Your task to perform on an android device: turn off priority inbox in the gmail app Image 0: 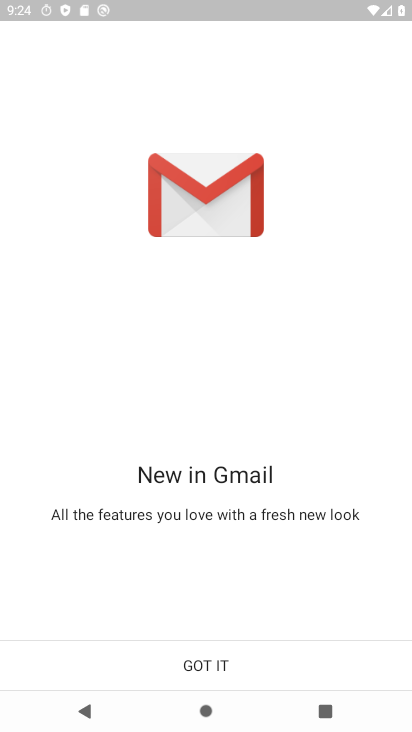
Step 0: click (184, 656)
Your task to perform on an android device: turn off priority inbox in the gmail app Image 1: 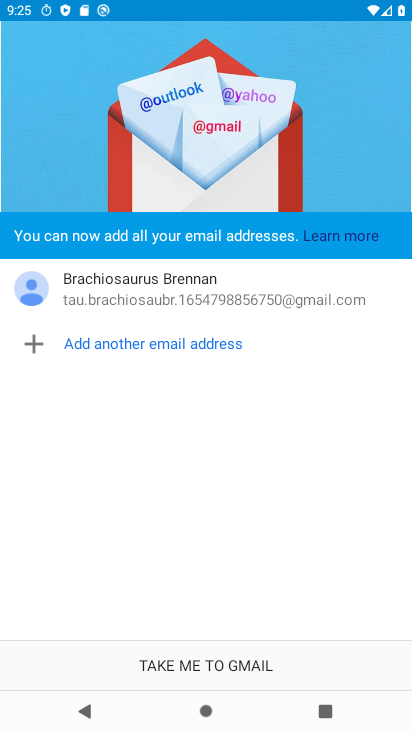
Step 1: click (184, 656)
Your task to perform on an android device: turn off priority inbox in the gmail app Image 2: 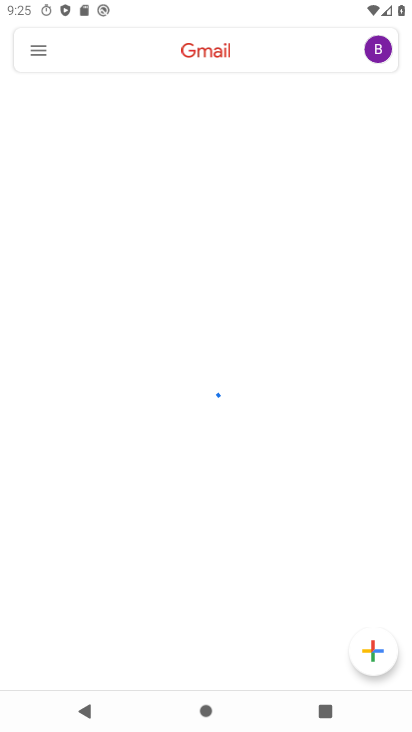
Step 2: click (34, 56)
Your task to perform on an android device: turn off priority inbox in the gmail app Image 3: 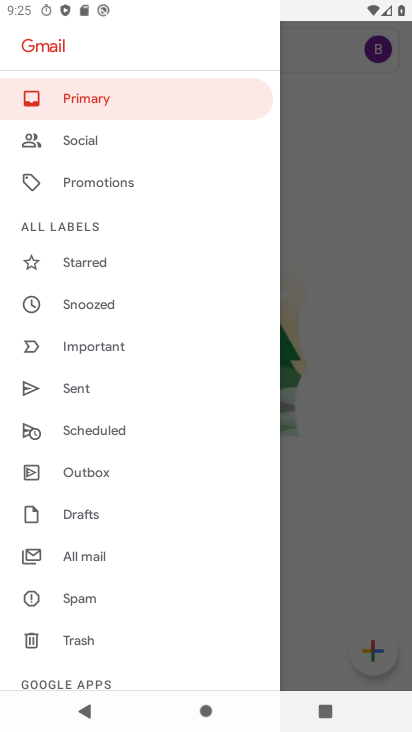
Step 3: drag from (103, 675) to (113, 38)
Your task to perform on an android device: turn off priority inbox in the gmail app Image 4: 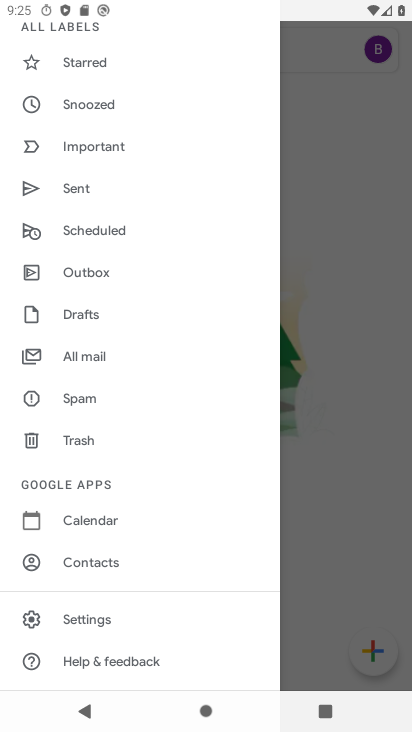
Step 4: click (109, 619)
Your task to perform on an android device: turn off priority inbox in the gmail app Image 5: 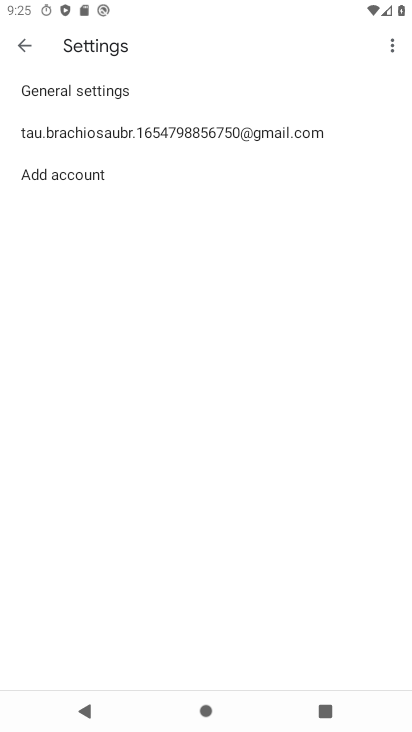
Step 5: click (164, 130)
Your task to perform on an android device: turn off priority inbox in the gmail app Image 6: 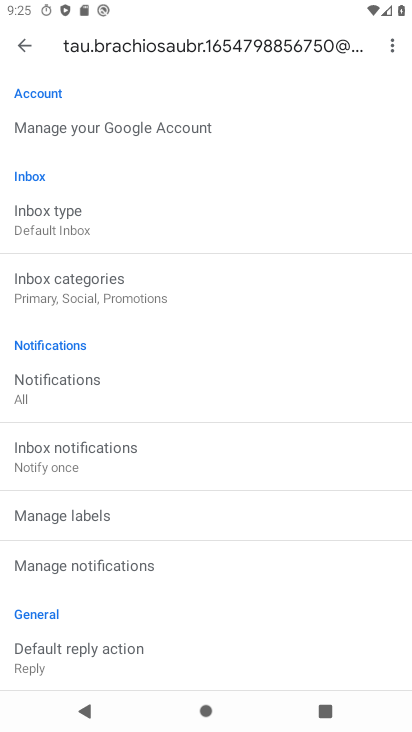
Step 6: click (95, 229)
Your task to perform on an android device: turn off priority inbox in the gmail app Image 7: 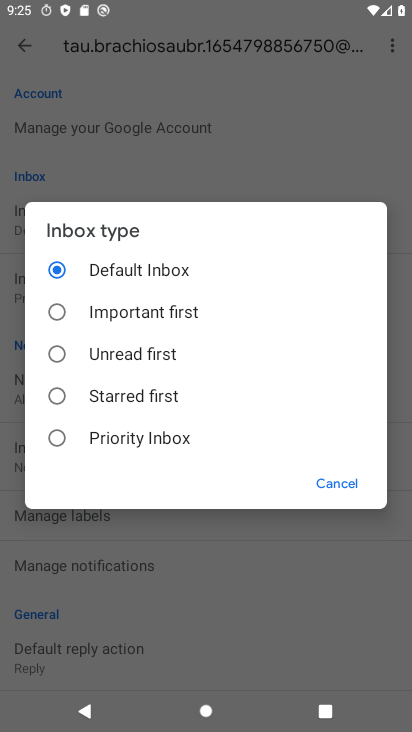
Step 7: click (107, 269)
Your task to perform on an android device: turn off priority inbox in the gmail app Image 8: 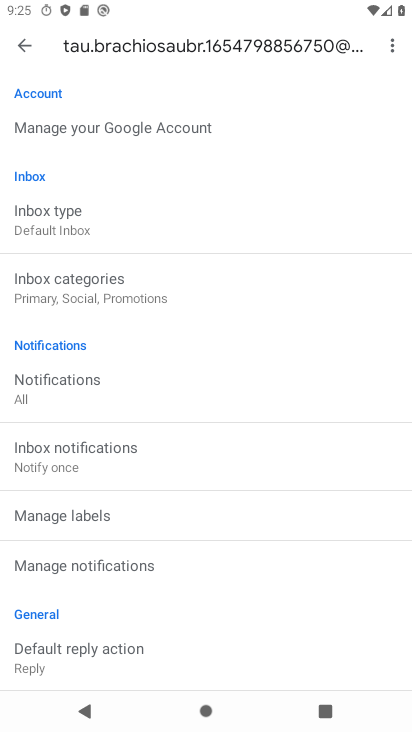
Step 8: task complete